Your task to perform on an android device: turn on wifi Image 0: 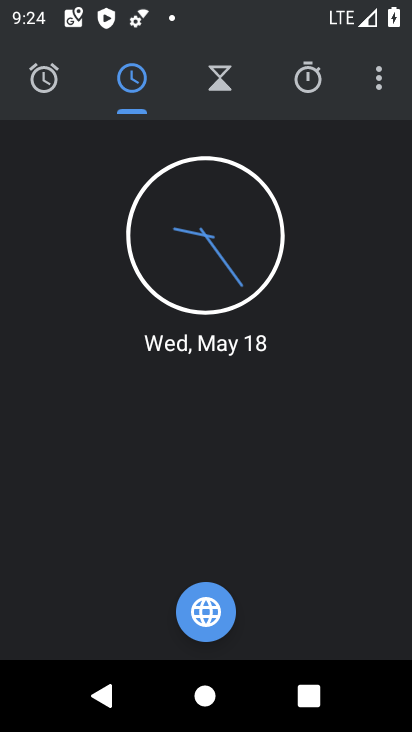
Step 0: press home button
Your task to perform on an android device: turn on wifi Image 1: 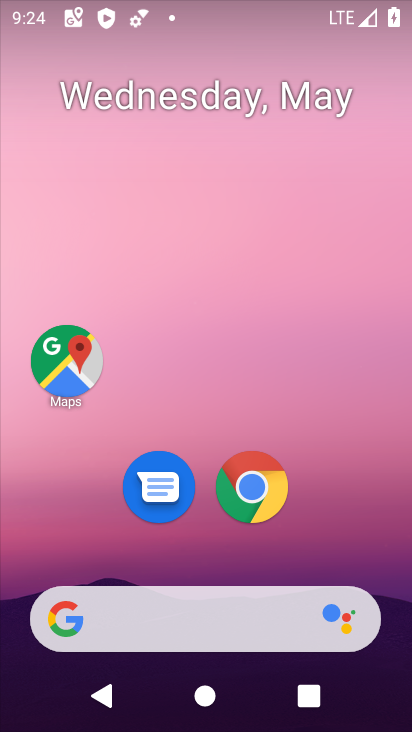
Step 1: drag from (343, 530) to (261, 216)
Your task to perform on an android device: turn on wifi Image 2: 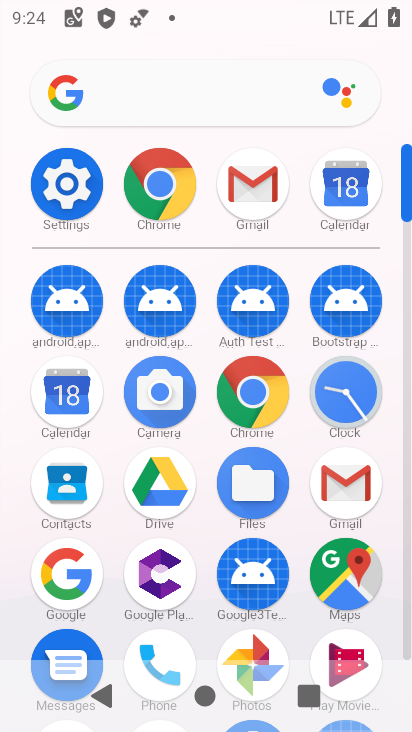
Step 2: click (64, 172)
Your task to perform on an android device: turn on wifi Image 3: 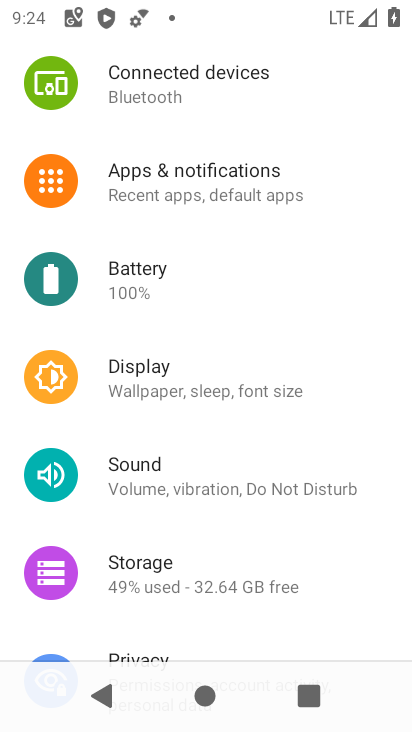
Step 3: drag from (239, 116) to (262, 320)
Your task to perform on an android device: turn on wifi Image 4: 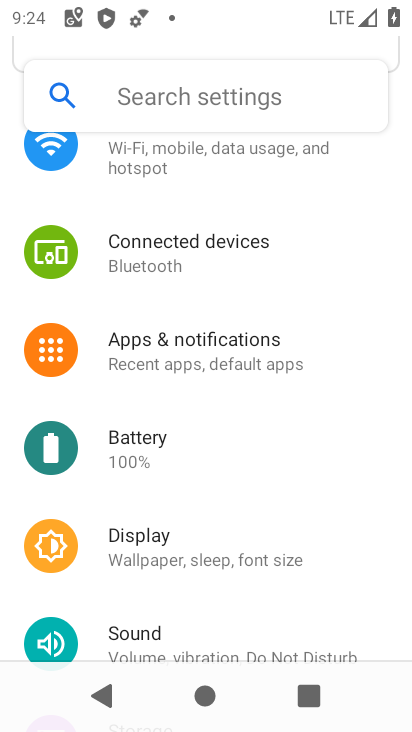
Step 4: drag from (201, 209) to (245, 459)
Your task to perform on an android device: turn on wifi Image 5: 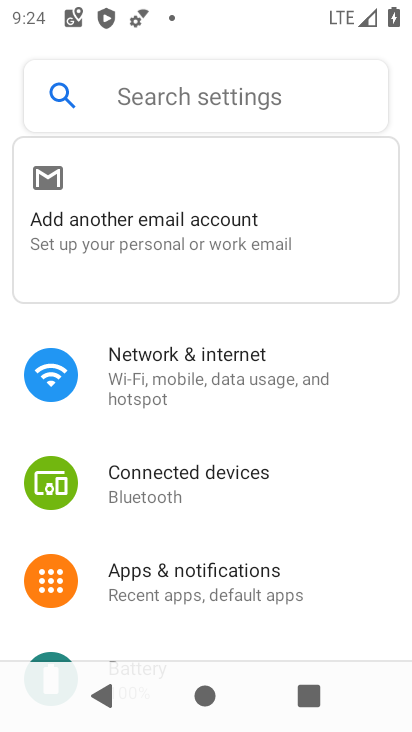
Step 5: click (194, 356)
Your task to perform on an android device: turn on wifi Image 6: 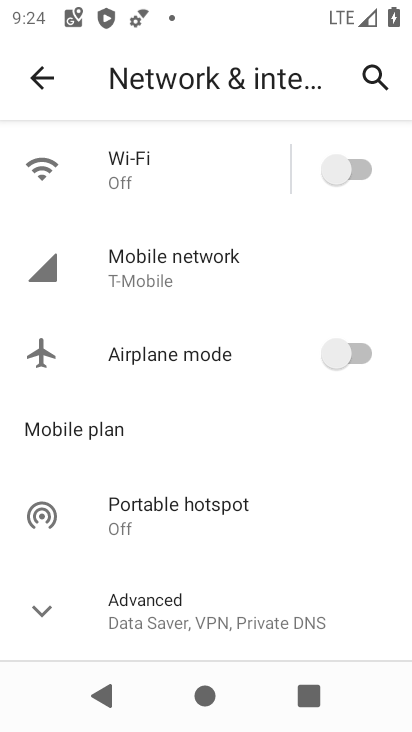
Step 6: click (325, 176)
Your task to perform on an android device: turn on wifi Image 7: 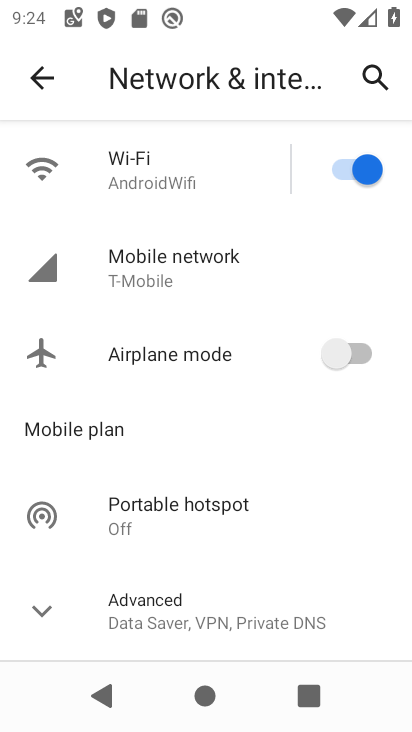
Step 7: task complete